Your task to perform on an android device: change text size in settings app Image 0: 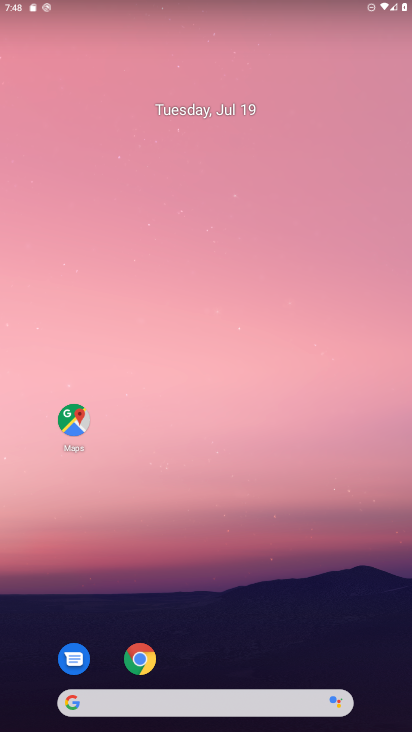
Step 0: drag from (204, 605) to (220, 226)
Your task to perform on an android device: change text size in settings app Image 1: 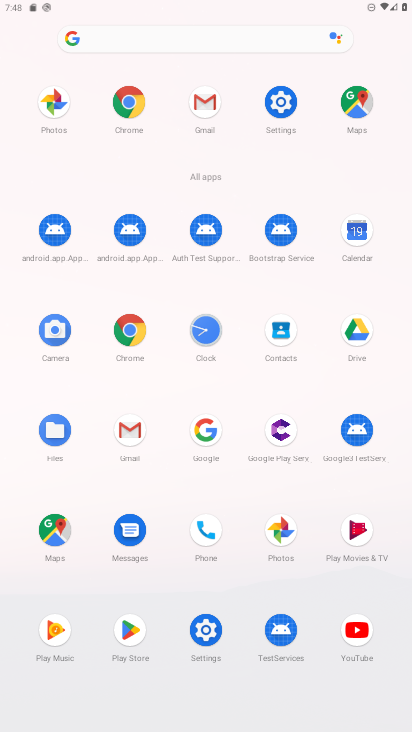
Step 1: click (291, 92)
Your task to perform on an android device: change text size in settings app Image 2: 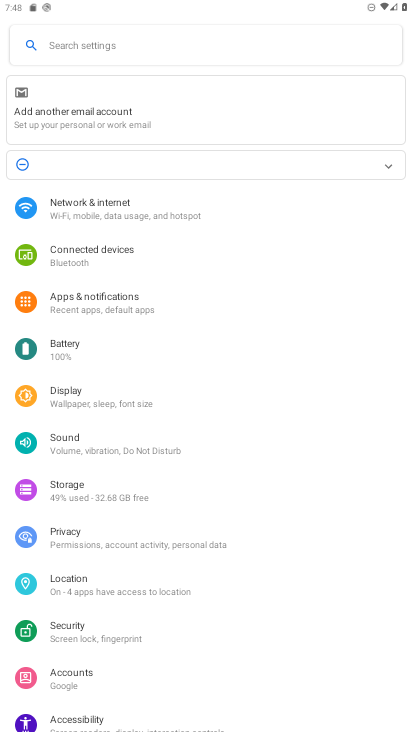
Step 2: drag from (115, 668) to (204, 282)
Your task to perform on an android device: change text size in settings app Image 3: 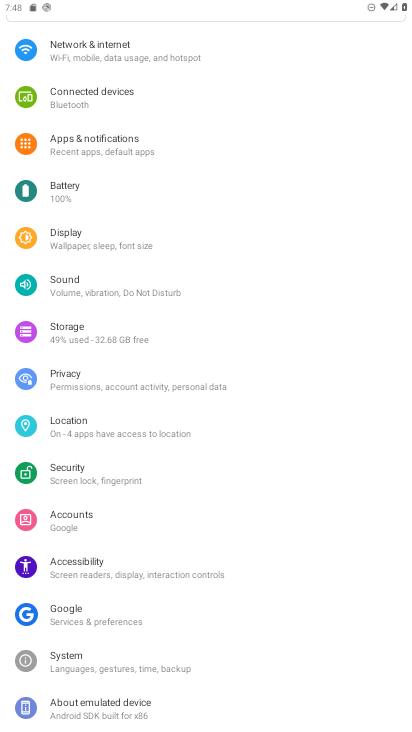
Step 3: click (124, 649)
Your task to perform on an android device: change text size in settings app Image 4: 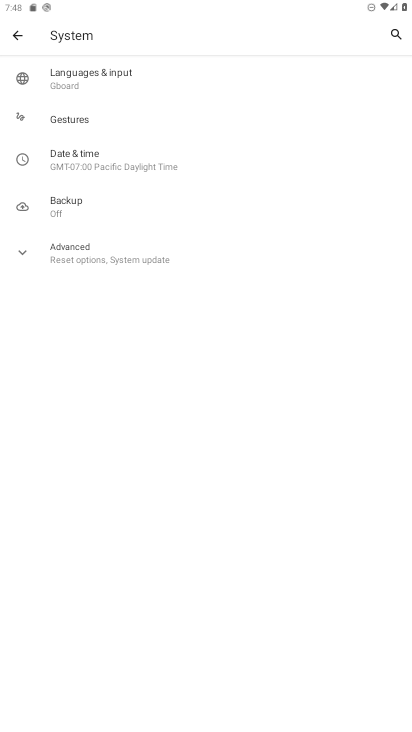
Step 4: click (15, 46)
Your task to perform on an android device: change text size in settings app Image 5: 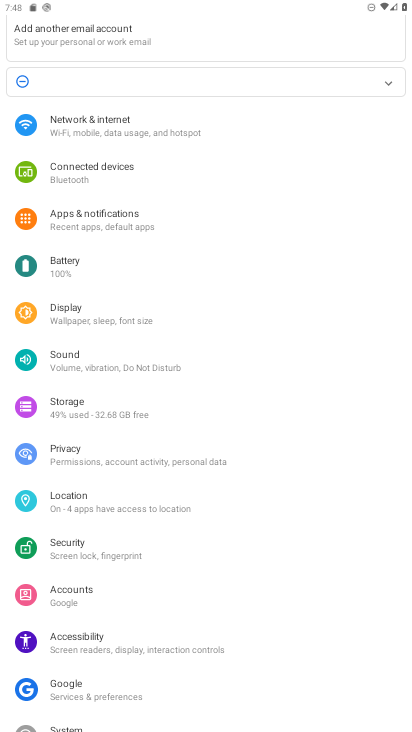
Step 5: click (109, 644)
Your task to perform on an android device: change text size in settings app Image 6: 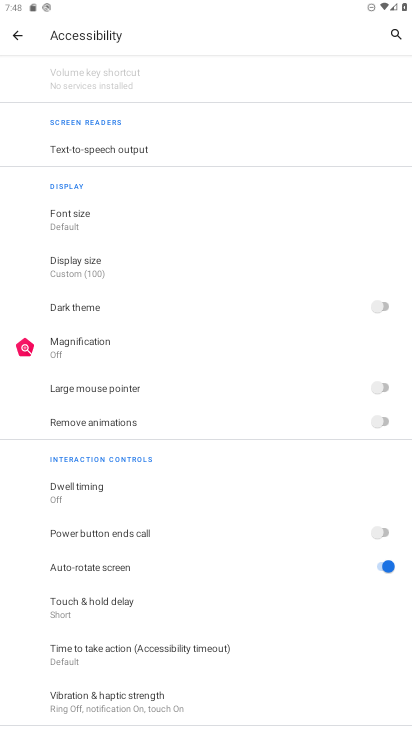
Step 6: click (86, 221)
Your task to perform on an android device: change text size in settings app Image 7: 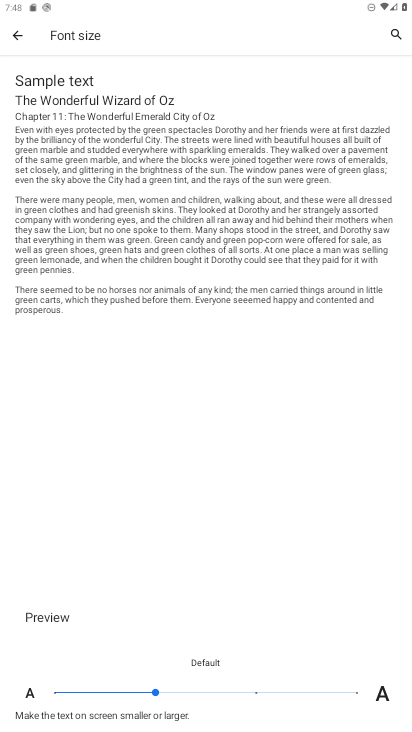
Step 7: click (257, 687)
Your task to perform on an android device: change text size in settings app Image 8: 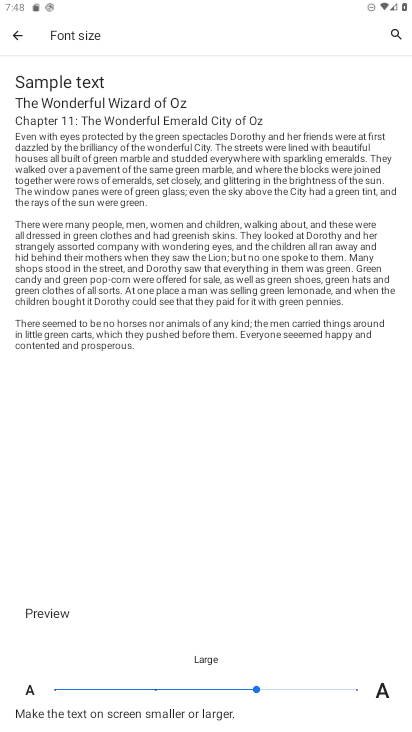
Step 8: task complete